Your task to perform on an android device: change notifications settings Image 0: 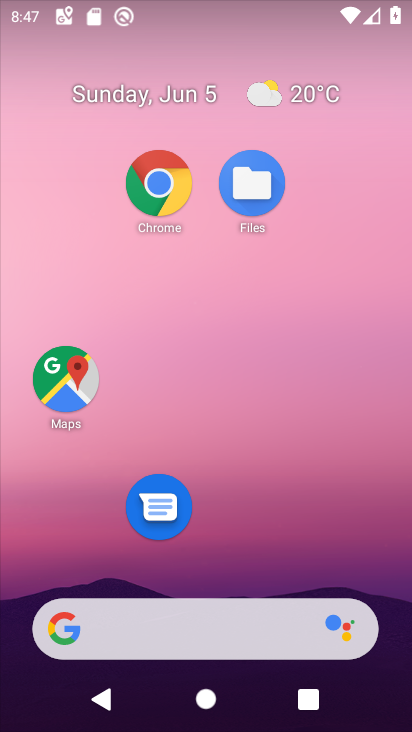
Step 0: drag from (215, 574) to (120, 113)
Your task to perform on an android device: change notifications settings Image 1: 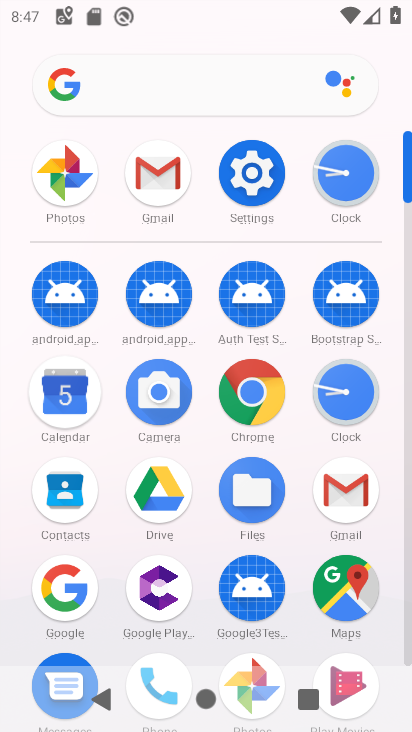
Step 1: click (258, 189)
Your task to perform on an android device: change notifications settings Image 2: 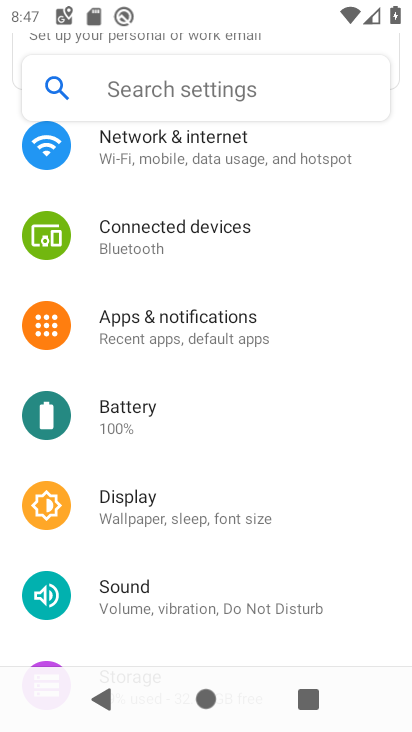
Step 2: click (218, 308)
Your task to perform on an android device: change notifications settings Image 3: 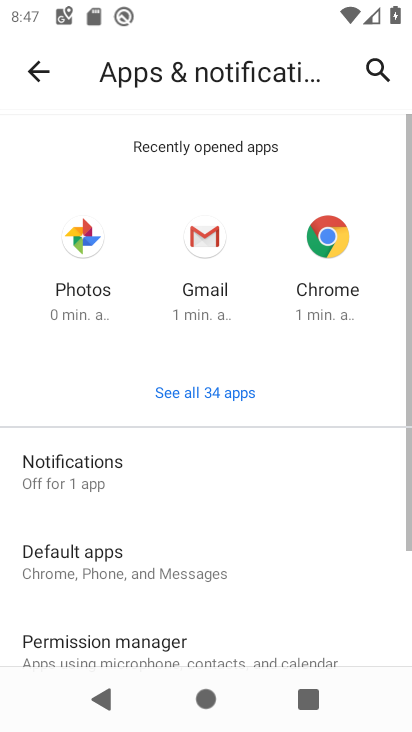
Step 3: click (111, 458)
Your task to perform on an android device: change notifications settings Image 4: 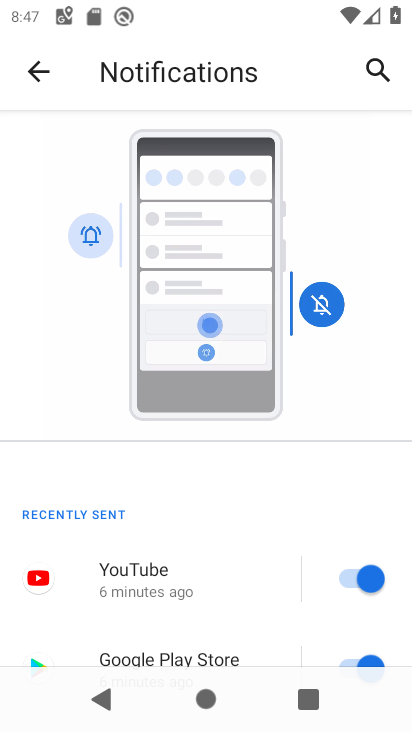
Step 4: drag from (165, 517) to (165, 13)
Your task to perform on an android device: change notifications settings Image 5: 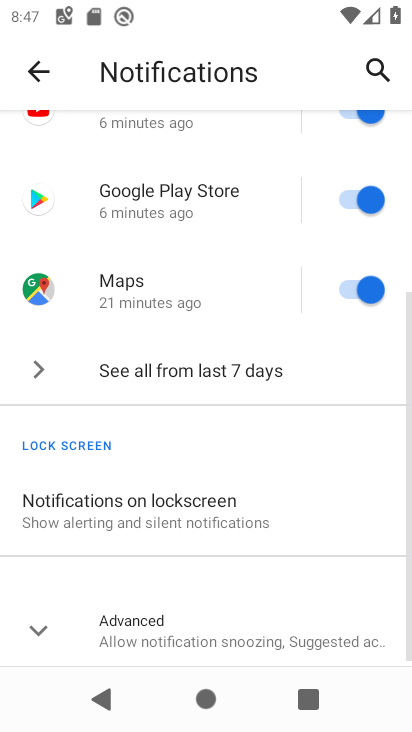
Step 5: click (184, 384)
Your task to perform on an android device: change notifications settings Image 6: 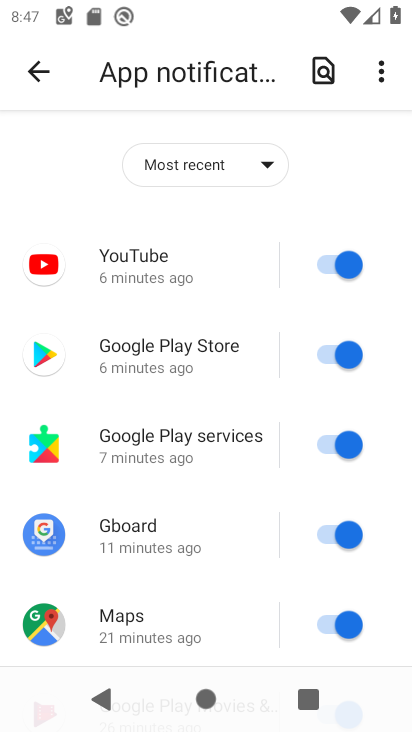
Step 6: click (222, 153)
Your task to perform on an android device: change notifications settings Image 7: 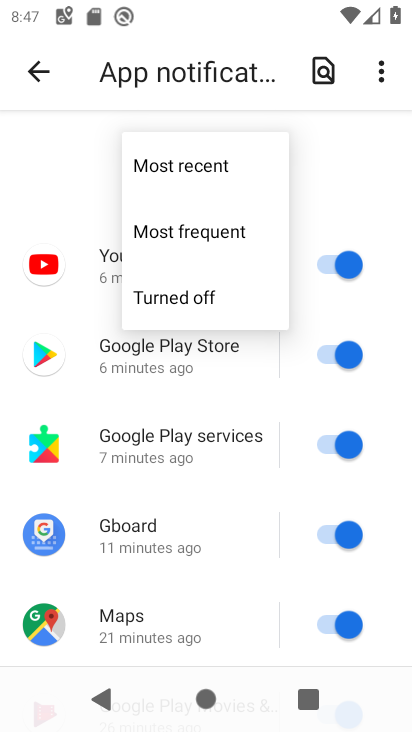
Step 7: click (206, 279)
Your task to perform on an android device: change notifications settings Image 8: 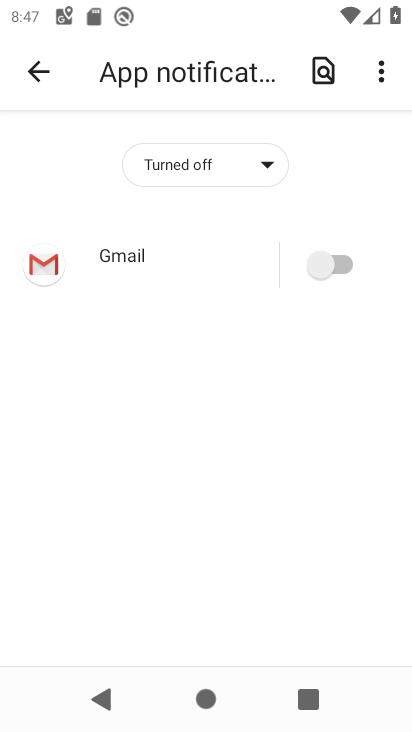
Step 8: task complete